Your task to perform on an android device: open app "Mercado Libre" (install if not already installed) and enter user name: "tolerating@yahoo.com" and password: "Kepler" Image 0: 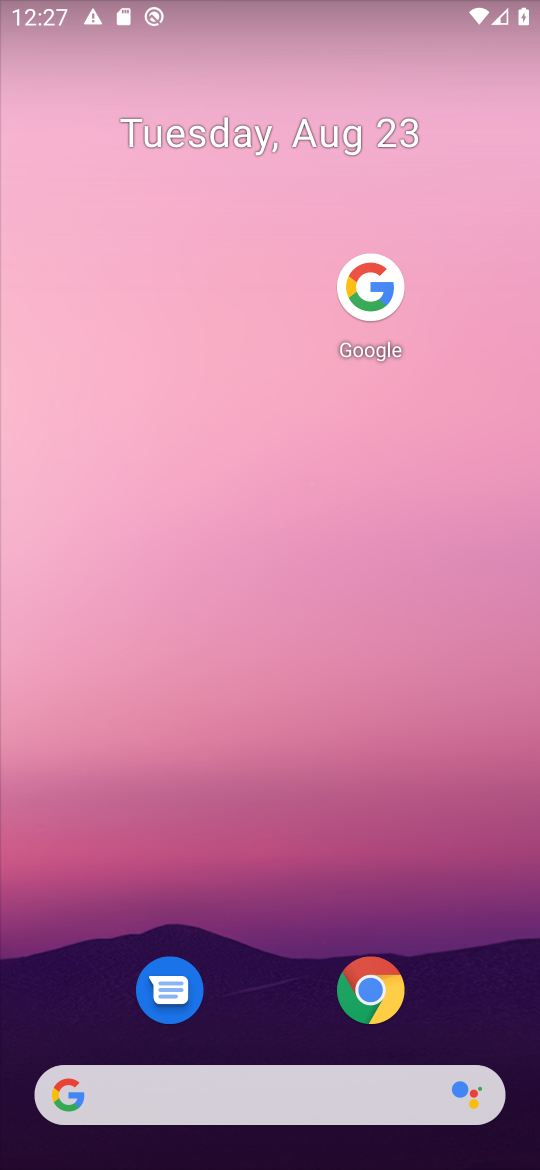
Step 0: drag from (249, 964) to (253, 376)
Your task to perform on an android device: open app "Mercado Libre" (install if not already installed) and enter user name: "tolerating@yahoo.com" and password: "Kepler" Image 1: 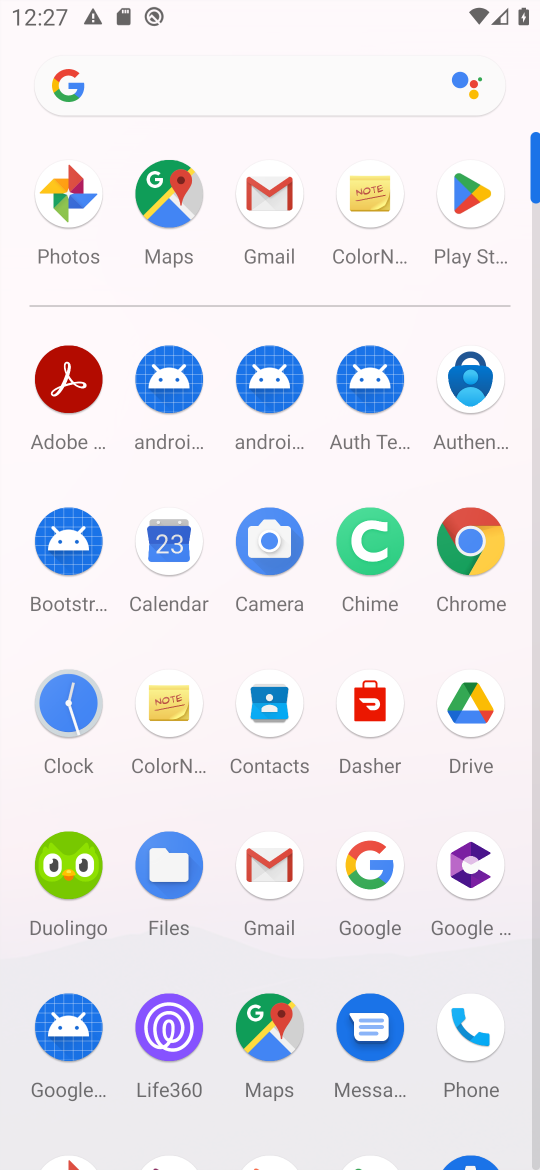
Step 1: click (477, 196)
Your task to perform on an android device: open app "Mercado Libre" (install if not already installed) and enter user name: "tolerating@yahoo.com" and password: "Kepler" Image 2: 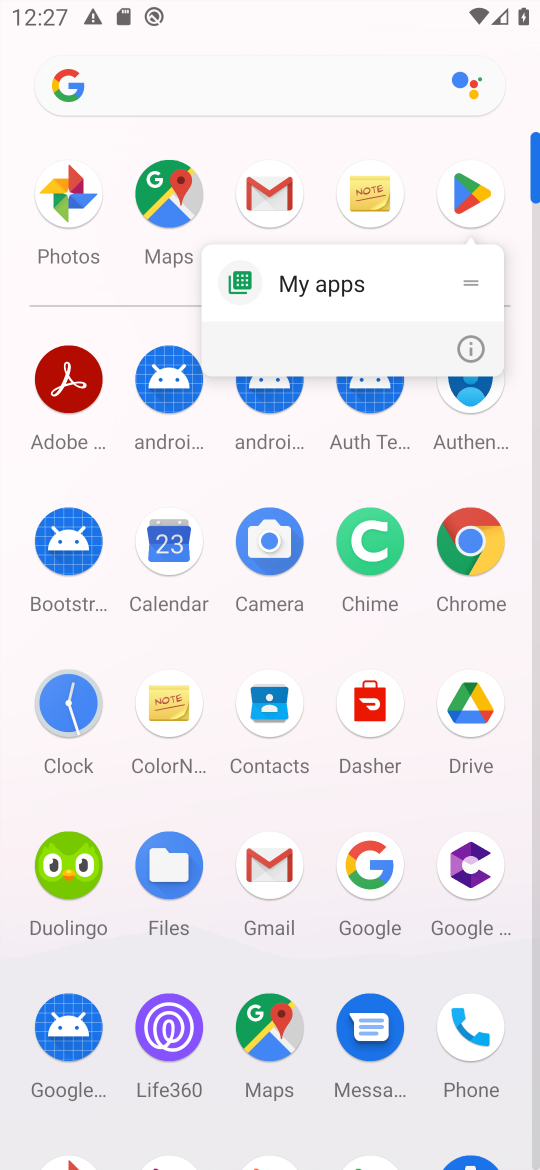
Step 2: click (467, 190)
Your task to perform on an android device: open app "Mercado Libre" (install if not already installed) and enter user name: "tolerating@yahoo.com" and password: "Kepler" Image 3: 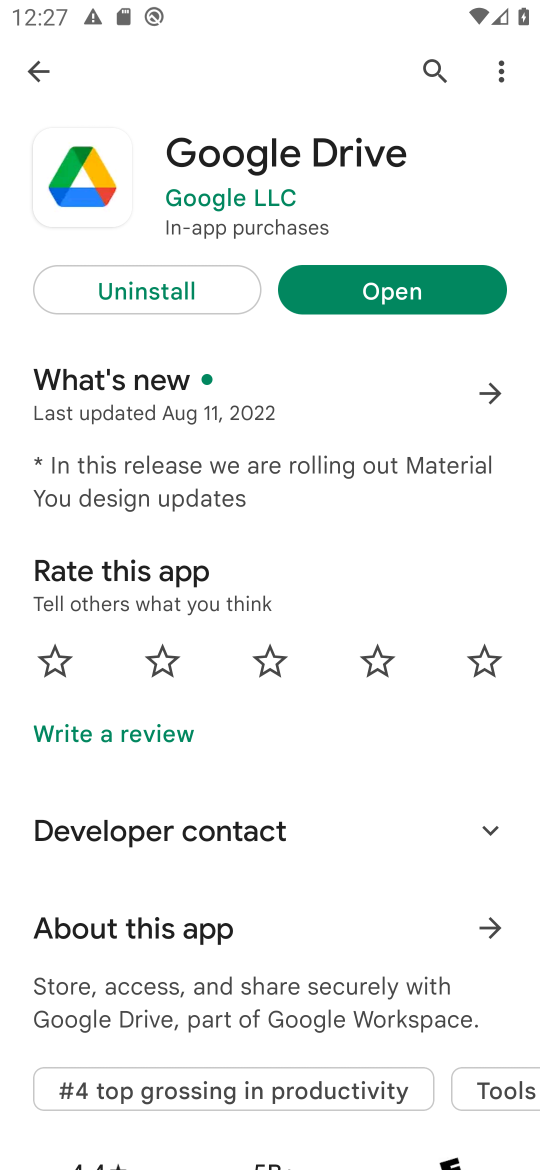
Step 3: click (12, 57)
Your task to perform on an android device: open app "Mercado Libre" (install if not already installed) and enter user name: "tolerating@yahoo.com" and password: "Kepler" Image 4: 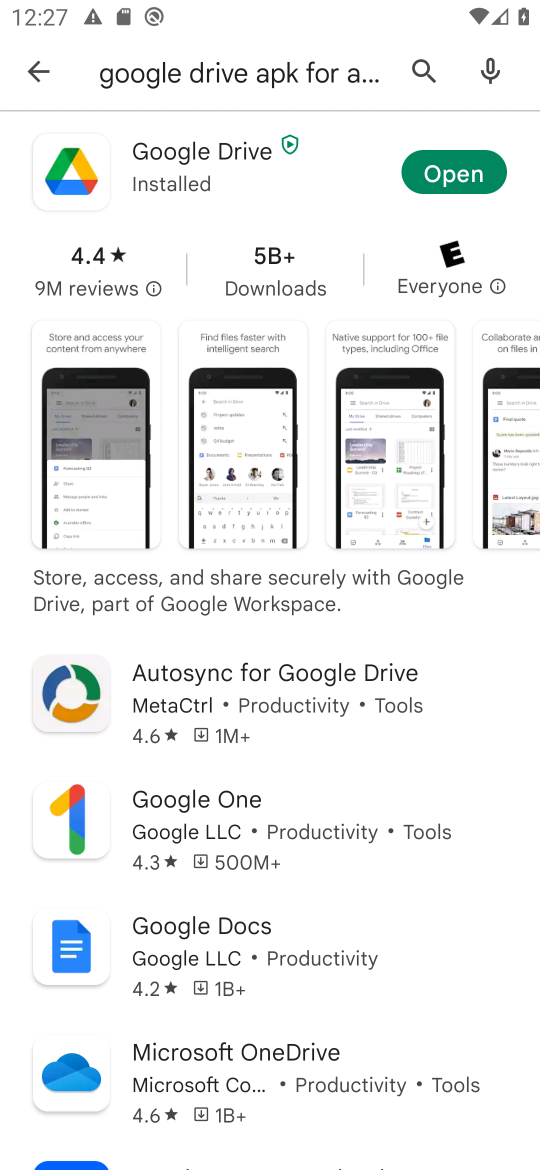
Step 4: click (34, 86)
Your task to perform on an android device: open app "Mercado Libre" (install if not already installed) and enter user name: "tolerating@yahoo.com" and password: "Kepler" Image 5: 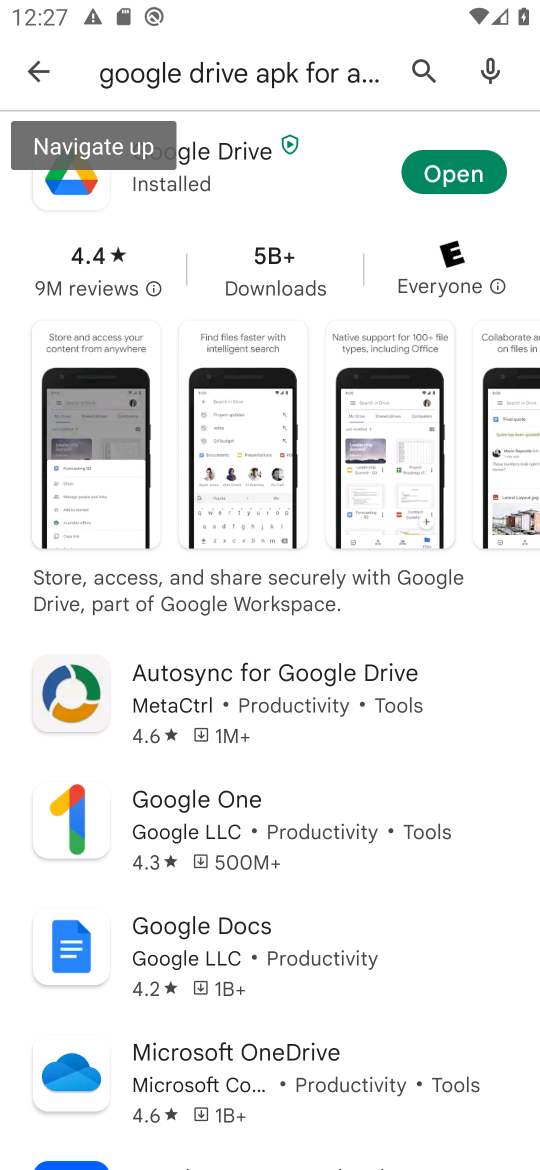
Step 5: click (34, 83)
Your task to perform on an android device: open app "Mercado Libre" (install if not already installed) and enter user name: "tolerating@yahoo.com" and password: "Kepler" Image 6: 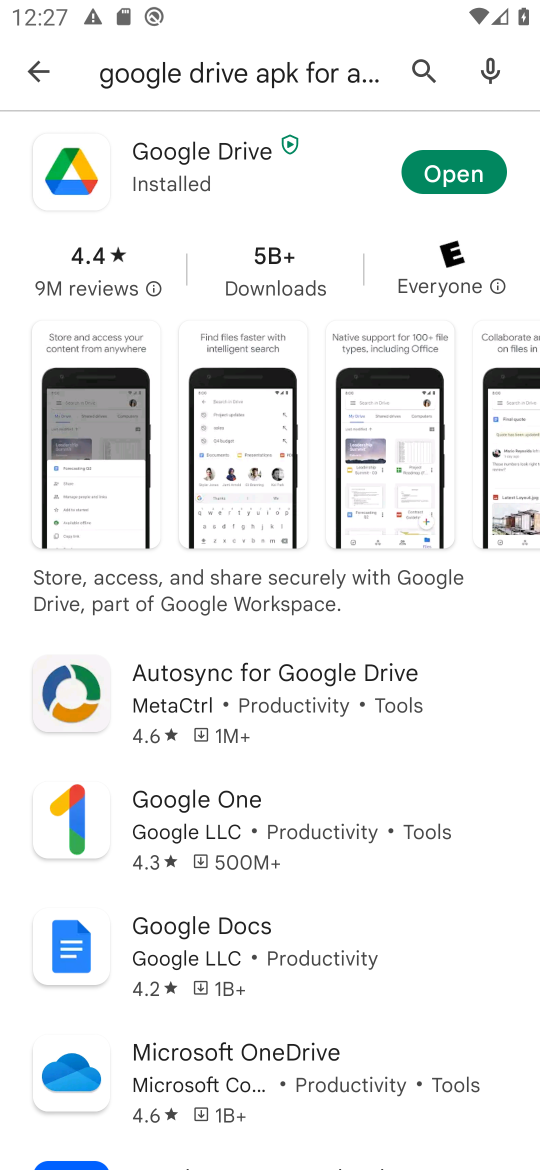
Step 6: click (29, 47)
Your task to perform on an android device: open app "Mercado Libre" (install if not already installed) and enter user name: "tolerating@yahoo.com" and password: "Kepler" Image 7: 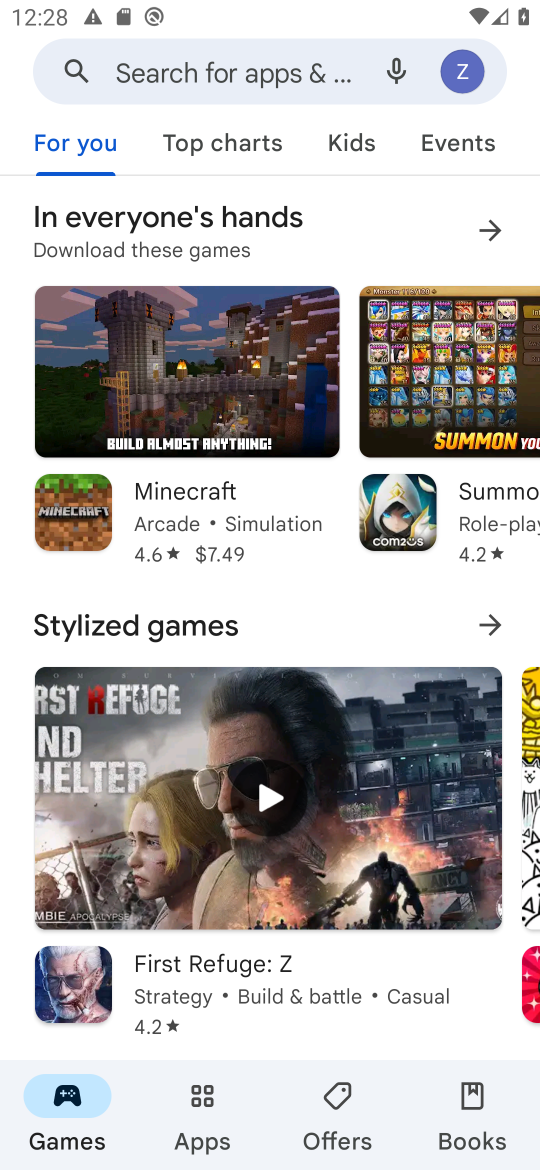
Step 7: click (172, 62)
Your task to perform on an android device: open app "Mercado Libre" (install if not already installed) and enter user name: "tolerating@yahoo.com" and password: "Kepler" Image 8: 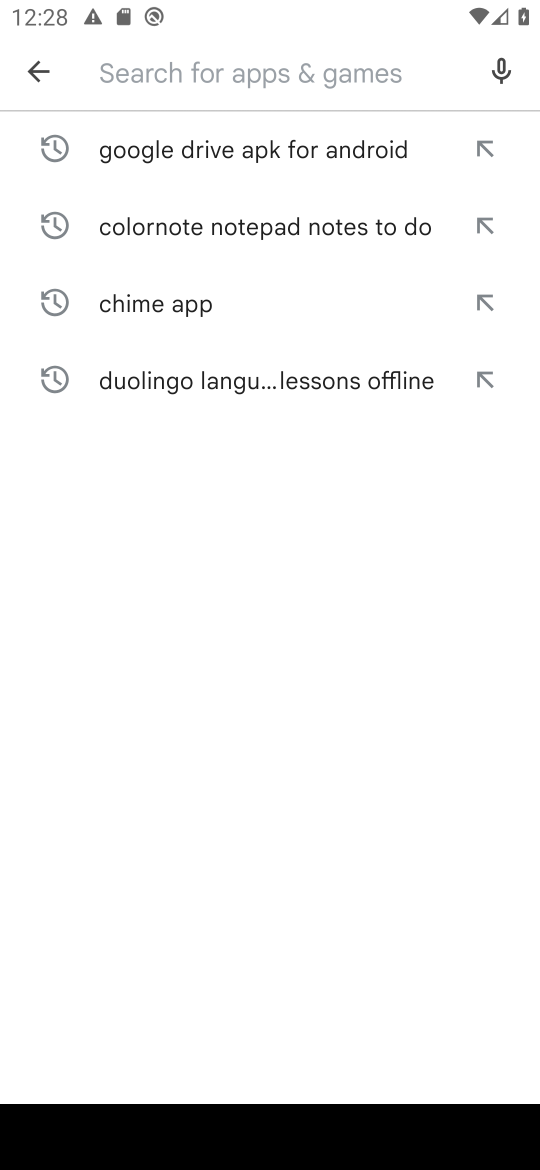
Step 8: type "Mercado Libre "
Your task to perform on an android device: open app "Mercado Libre" (install if not already installed) and enter user name: "tolerating@yahoo.com" and password: "Kepler" Image 9: 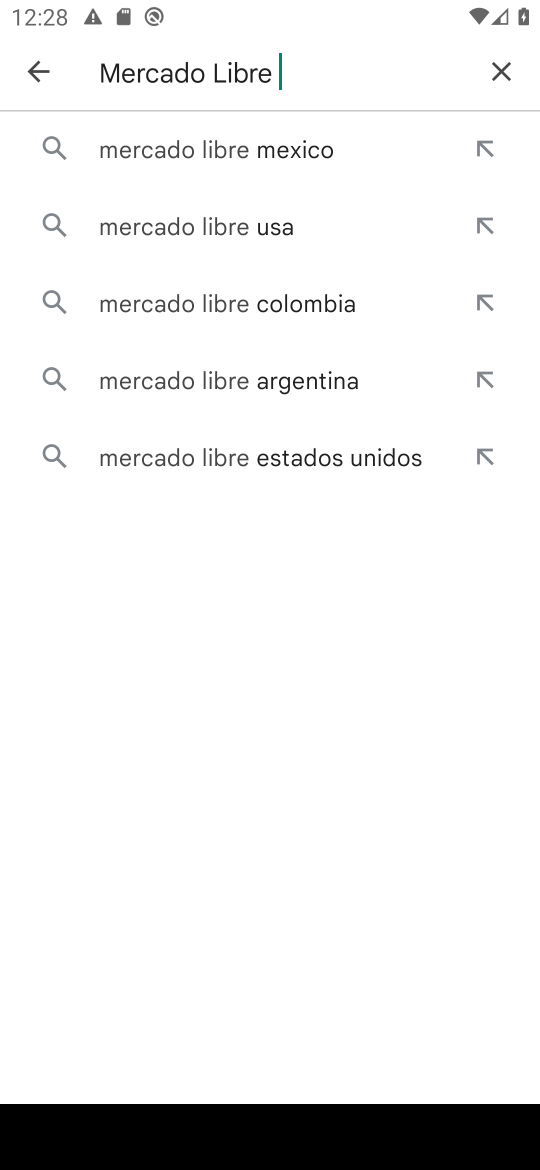
Step 9: click (239, 213)
Your task to perform on an android device: open app "Mercado Libre" (install if not already installed) and enter user name: "tolerating@yahoo.com" and password: "Kepler" Image 10: 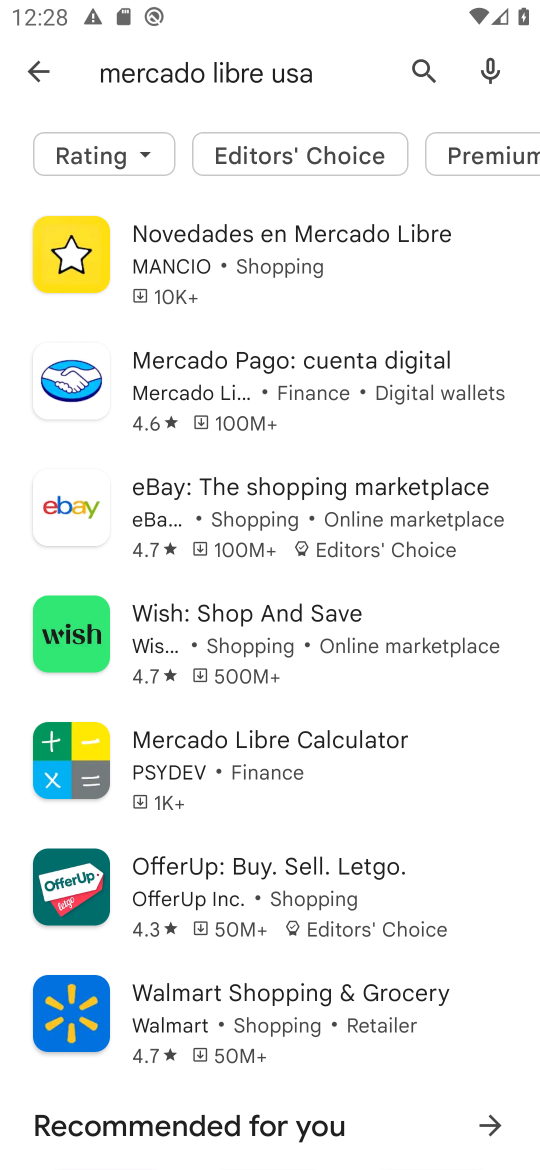
Step 10: click (204, 254)
Your task to perform on an android device: open app "Mercado Libre" (install if not already installed) and enter user name: "tolerating@yahoo.com" and password: "Kepler" Image 11: 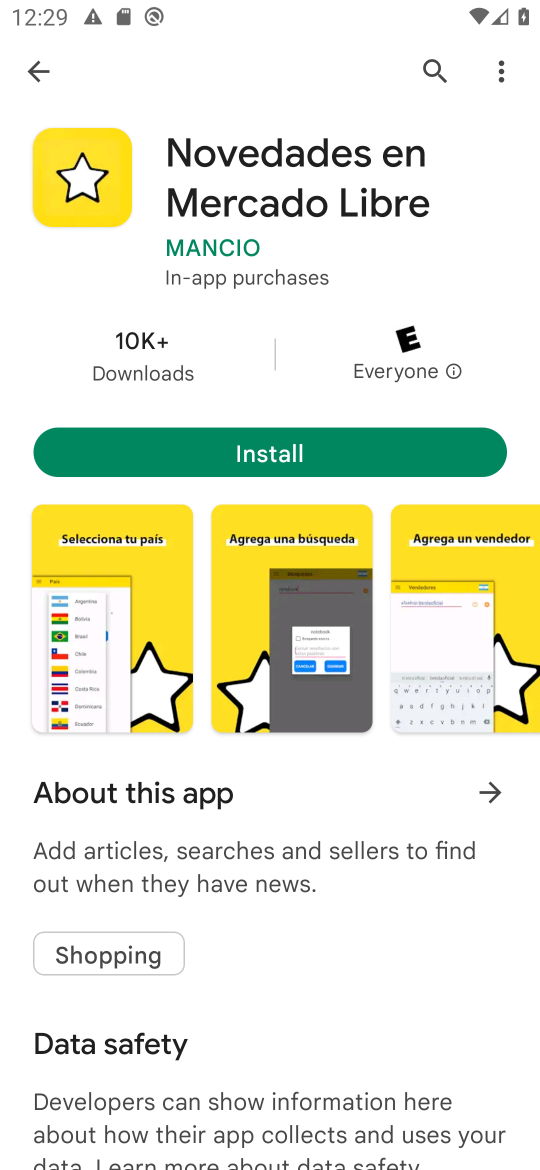
Step 11: click (339, 423)
Your task to perform on an android device: open app "Mercado Libre" (install if not already installed) and enter user name: "tolerating@yahoo.com" and password: "Kepler" Image 12: 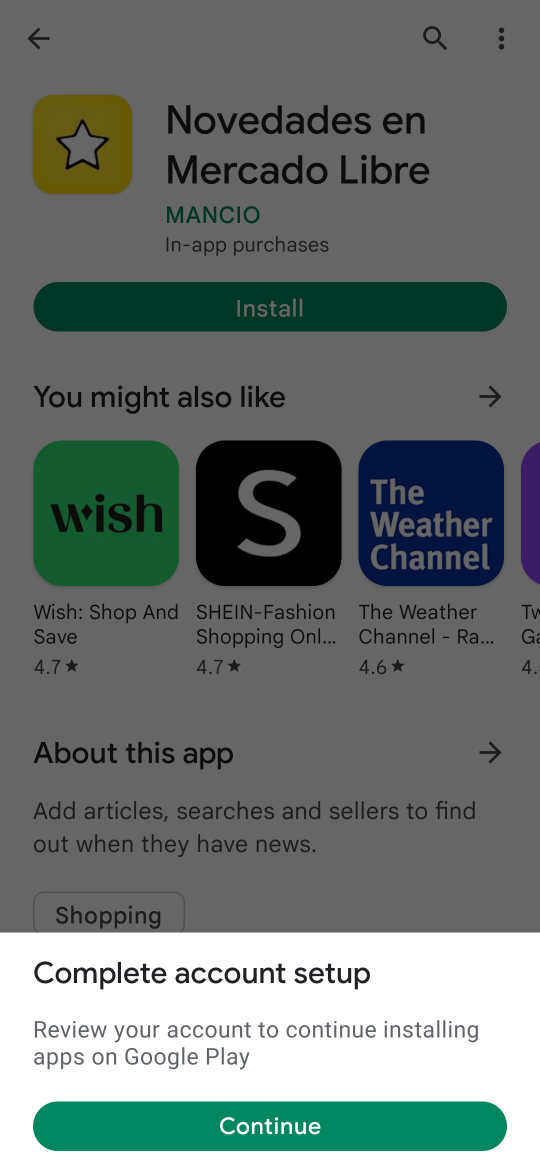
Step 12: task complete